Your task to perform on an android device: Go to display settings Image 0: 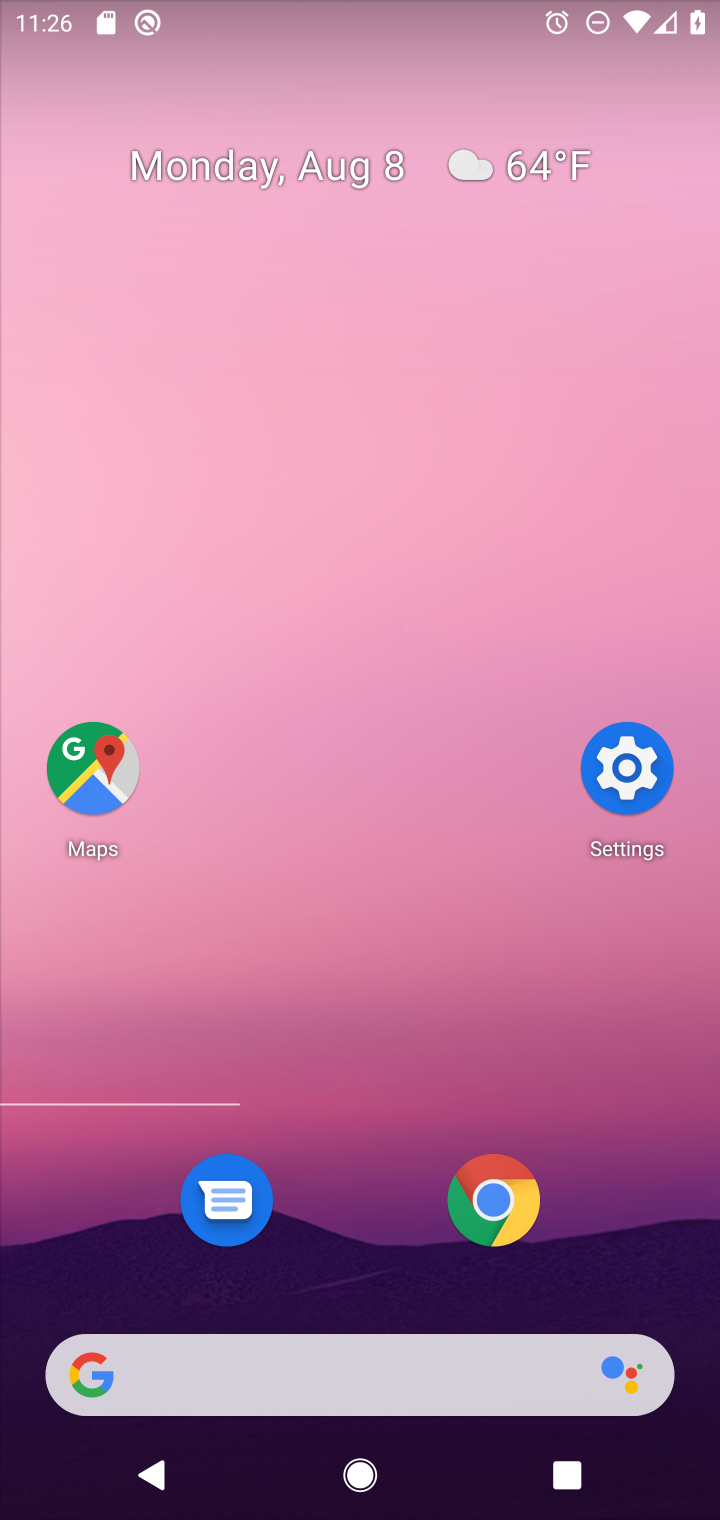
Step 0: press home button
Your task to perform on an android device: Go to display settings Image 1: 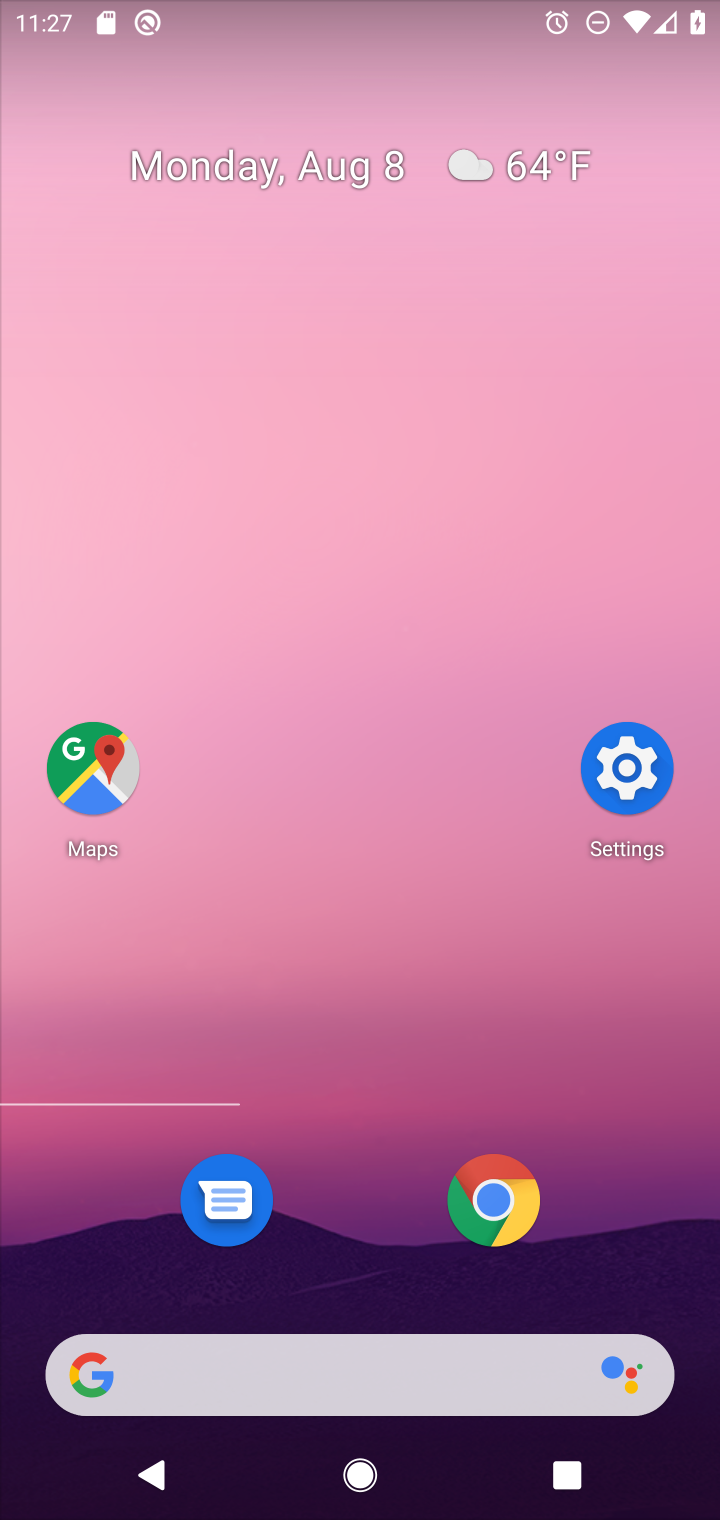
Step 1: click (615, 754)
Your task to perform on an android device: Go to display settings Image 2: 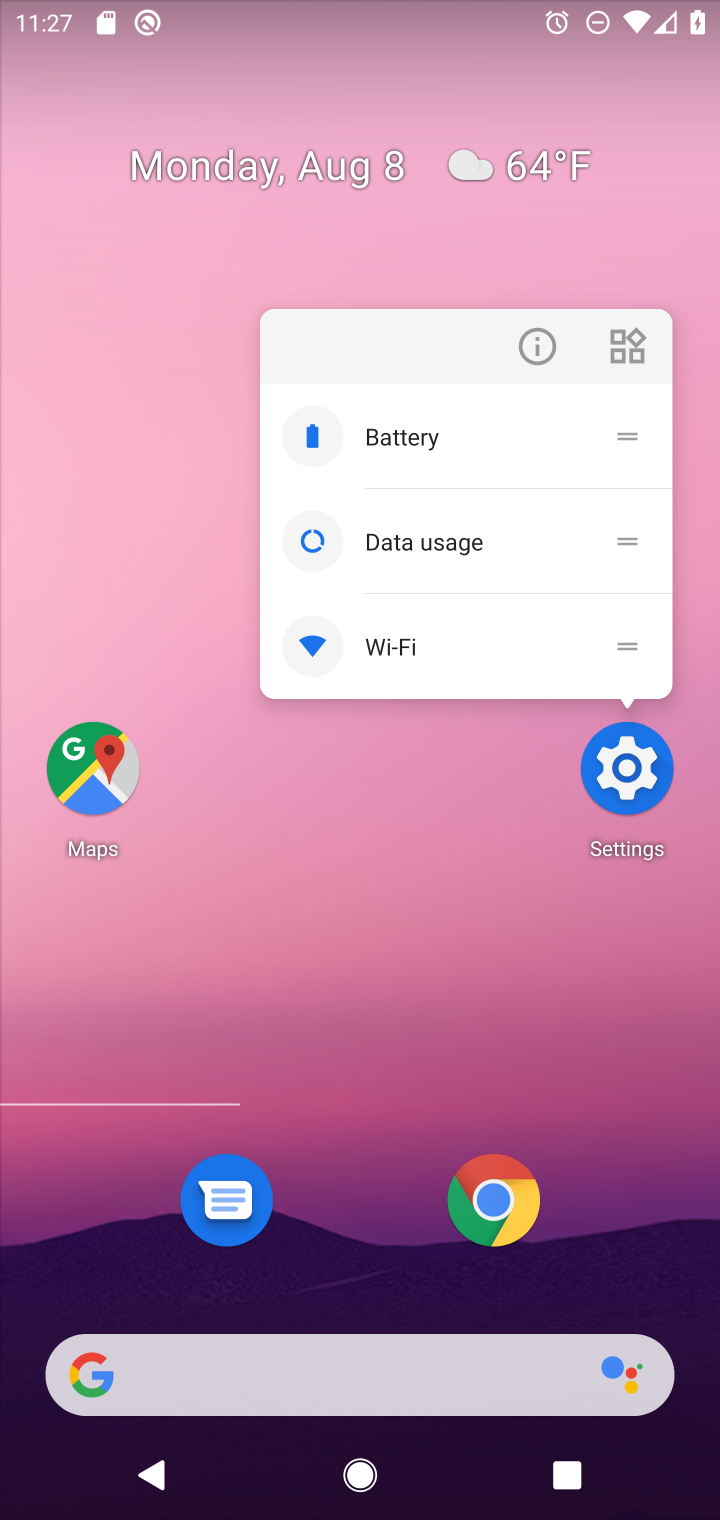
Step 2: click (615, 762)
Your task to perform on an android device: Go to display settings Image 3: 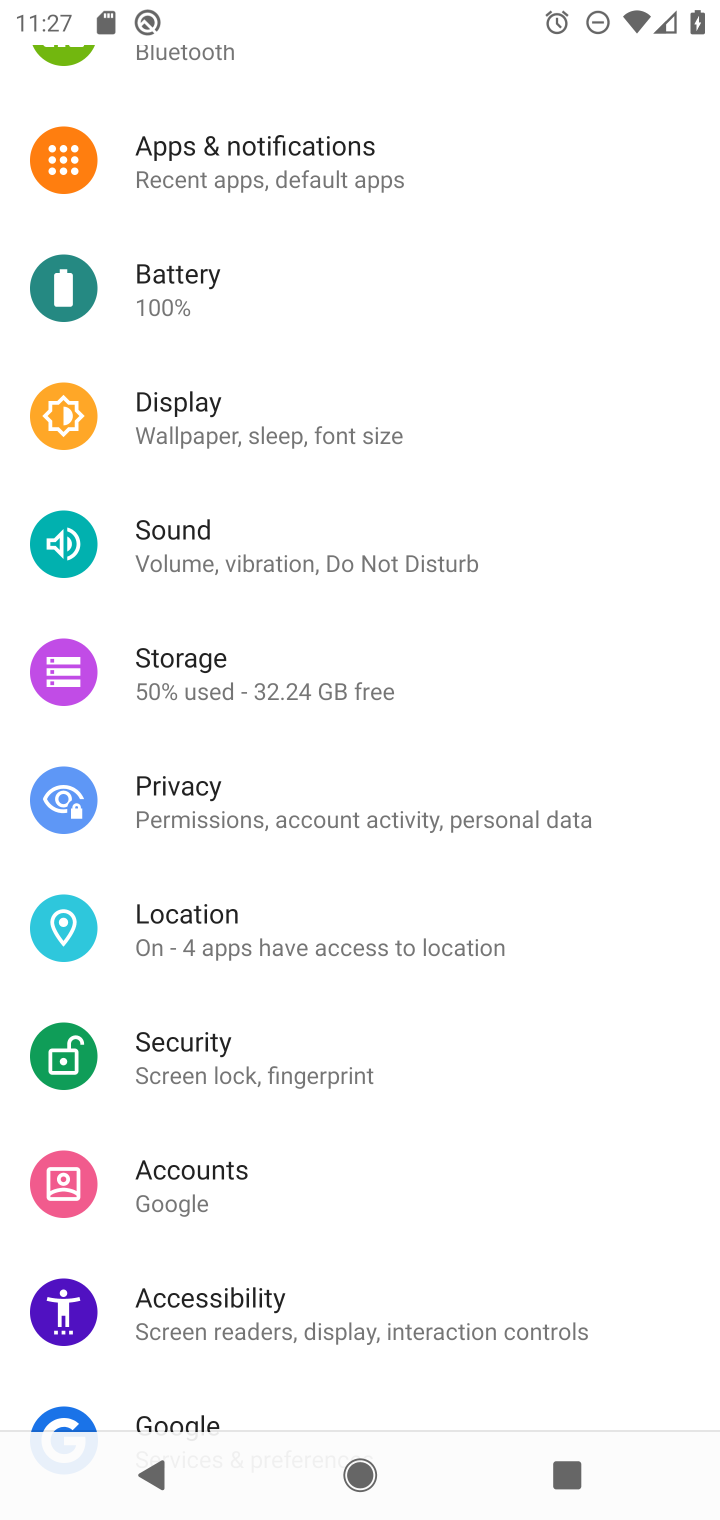
Step 3: click (154, 395)
Your task to perform on an android device: Go to display settings Image 4: 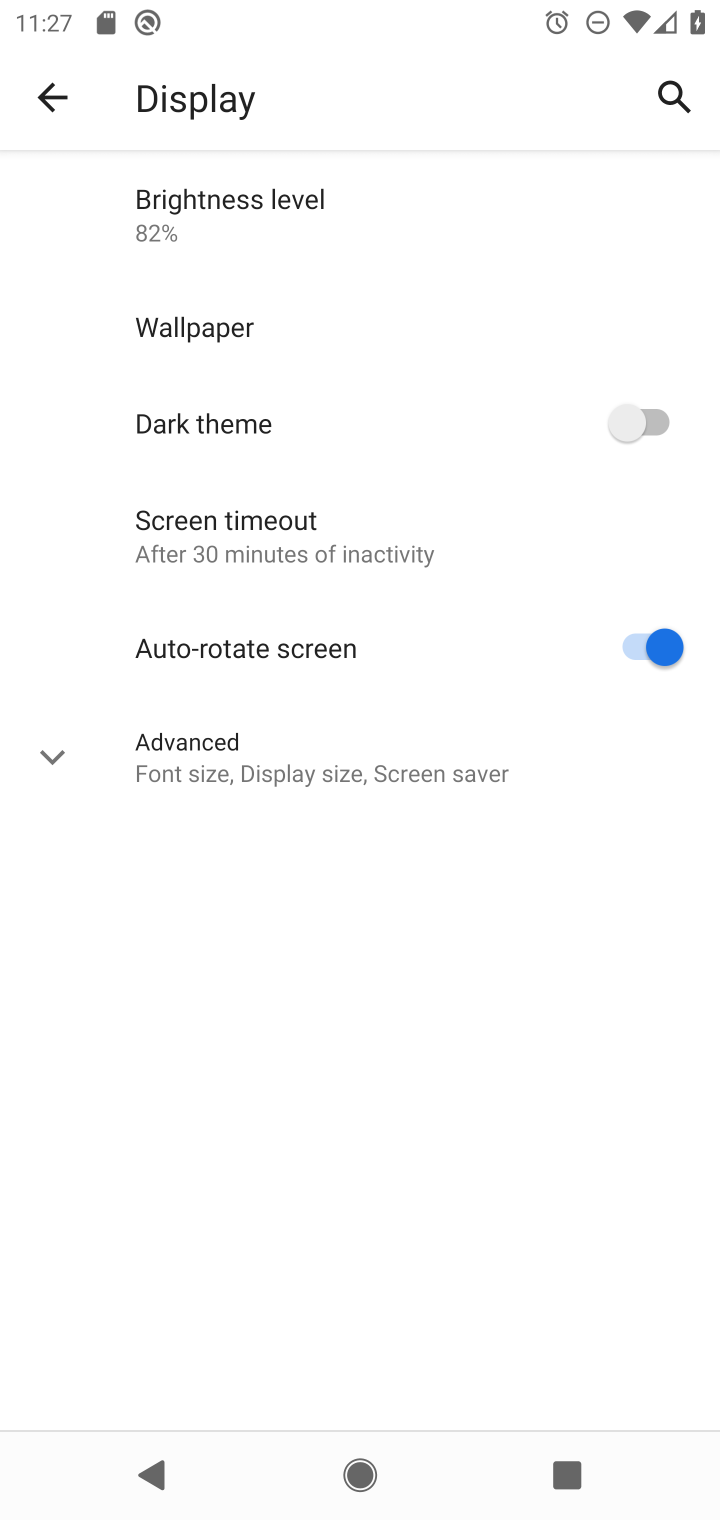
Step 4: task complete